Your task to perform on an android device: Open calendar and show me the third week of next month Image 0: 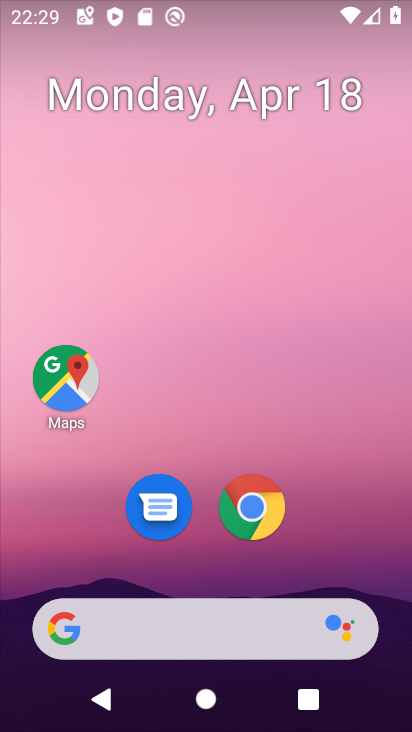
Step 0: drag from (338, 527) to (323, 74)
Your task to perform on an android device: Open calendar and show me the third week of next month Image 1: 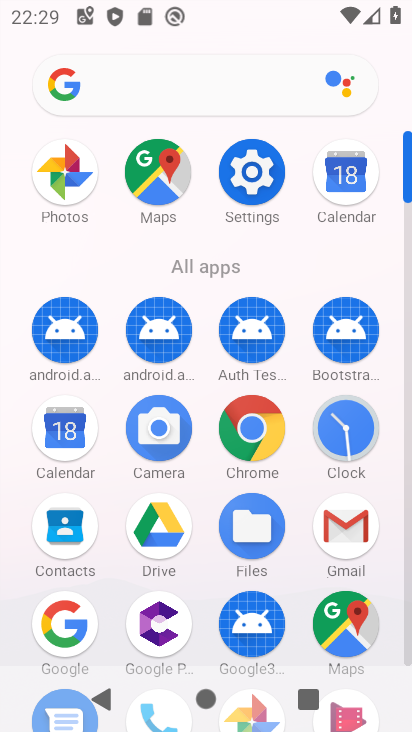
Step 1: click (346, 180)
Your task to perform on an android device: Open calendar and show me the third week of next month Image 2: 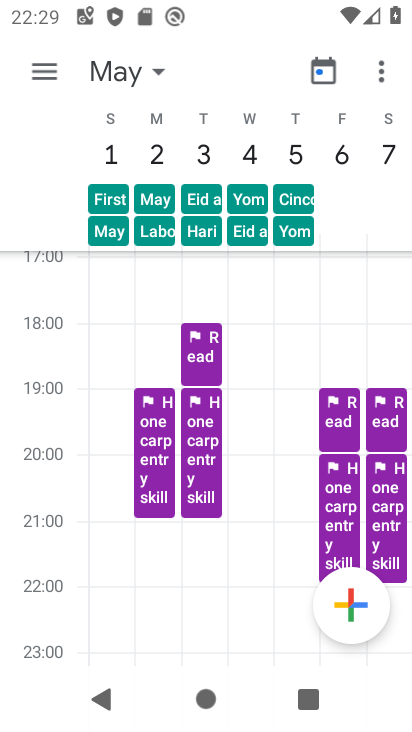
Step 2: task complete